Your task to perform on an android device: Toggle the flashlight Image 0: 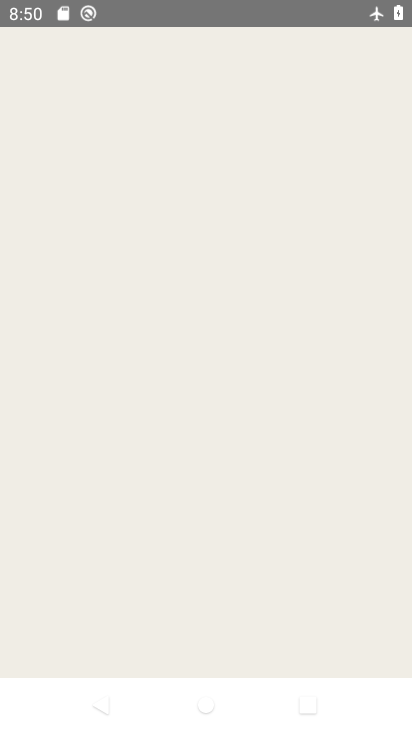
Step 0: drag from (244, 148) to (289, 19)
Your task to perform on an android device: Toggle the flashlight Image 1: 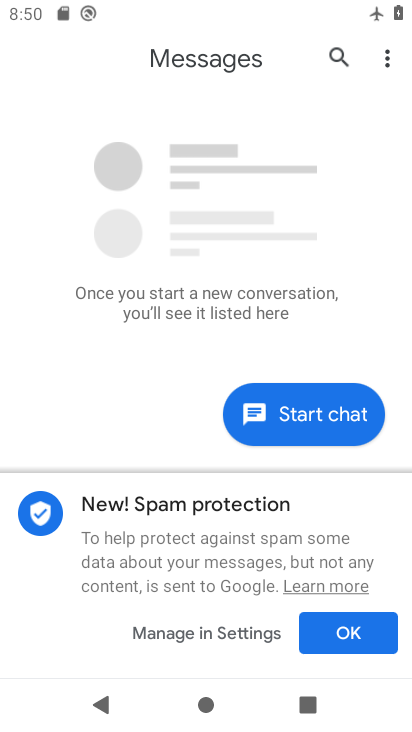
Step 1: press home button
Your task to perform on an android device: Toggle the flashlight Image 2: 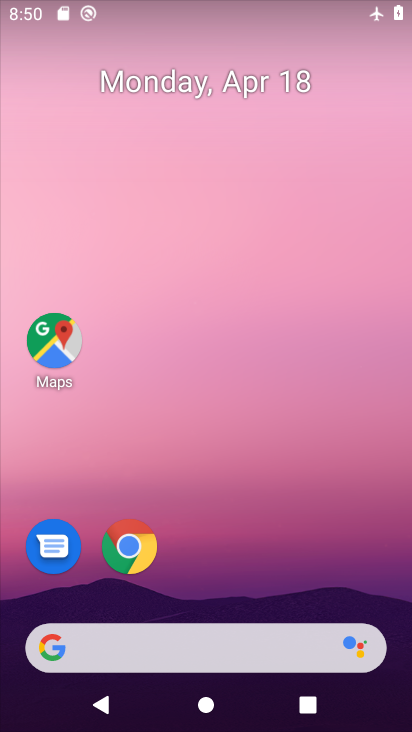
Step 2: drag from (396, 618) to (273, 7)
Your task to perform on an android device: Toggle the flashlight Image 3: 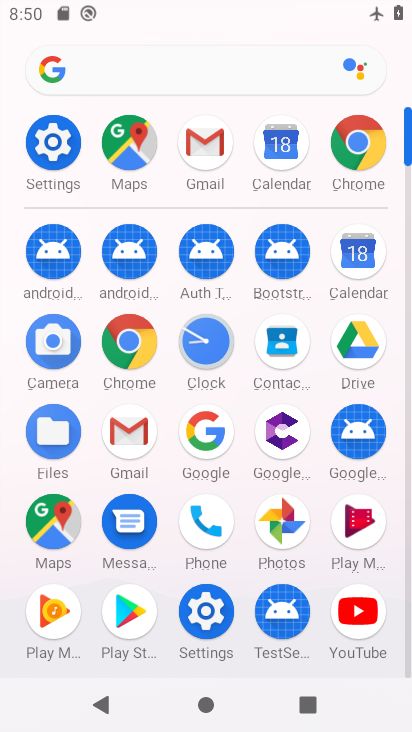
Step 3: drag from (276, 6) to (242, 616)
Your task to perform on an android device: Toggle the flashlight Image 4: 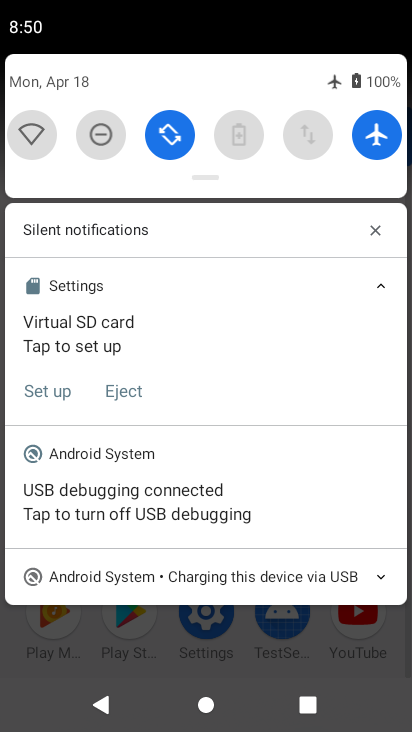
Step 4: drag from (210, 158) to (181, 553)
Your task to perform on an android device: Toggle the flashlight Image 5: 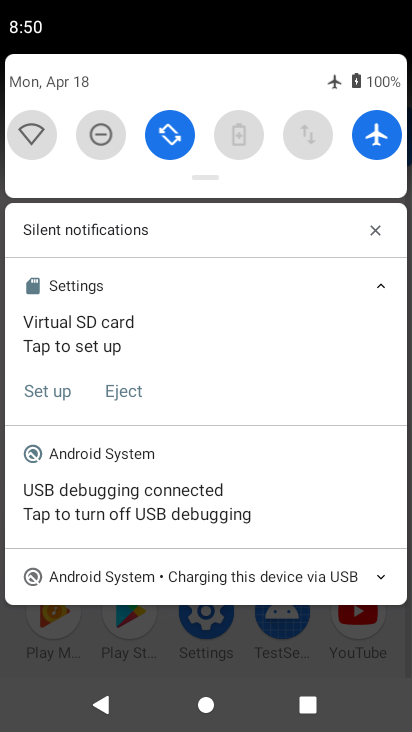
Step 5: drag from (211, 177) to (238, 646)
Your task to perform on an android device: Toggle the flashlight Image 6: 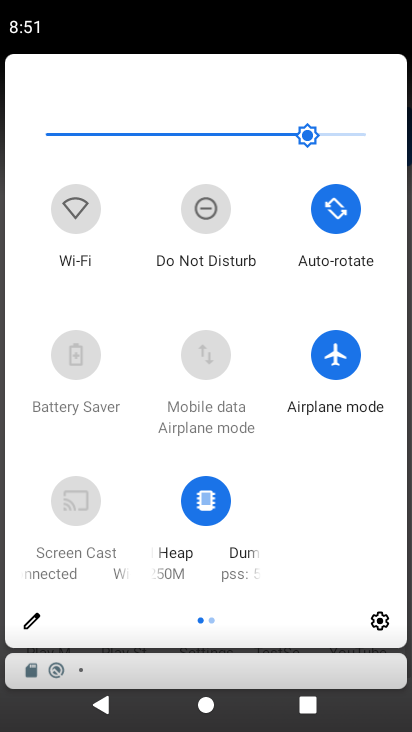
Step 6: drag from (360, 540) to (100, 528)
Your task to perform on an android device: Toggle the flashlight Image 7: 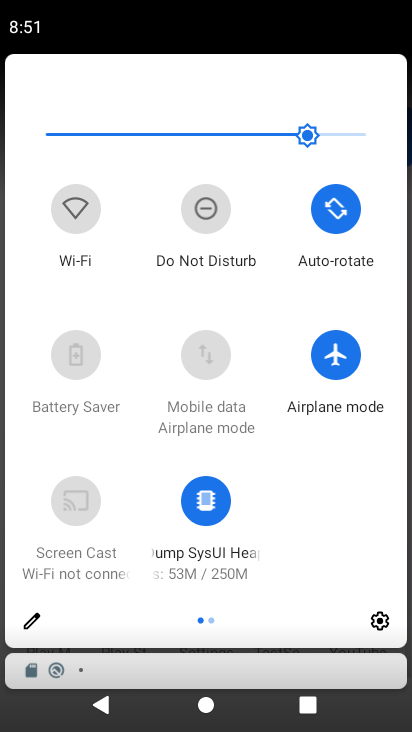
Step 7: drag from (361, 485) to (13, 458)
Your task to perform on an android device: Toggle the flashlight Image 8: 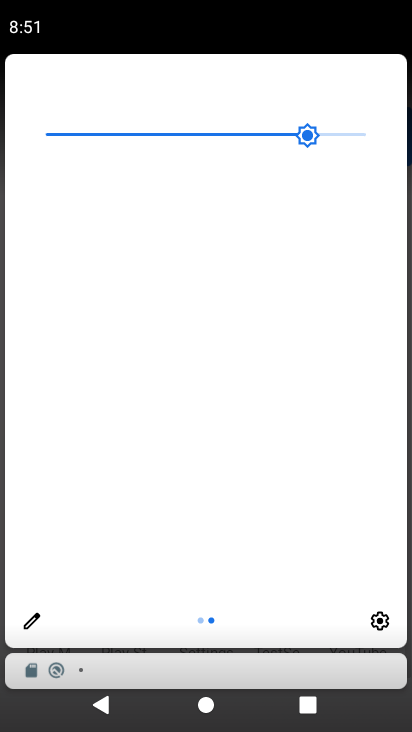
Step 8: click (29, 632)
Your task to perform on an android device: Toggle the flashlight Image 9: 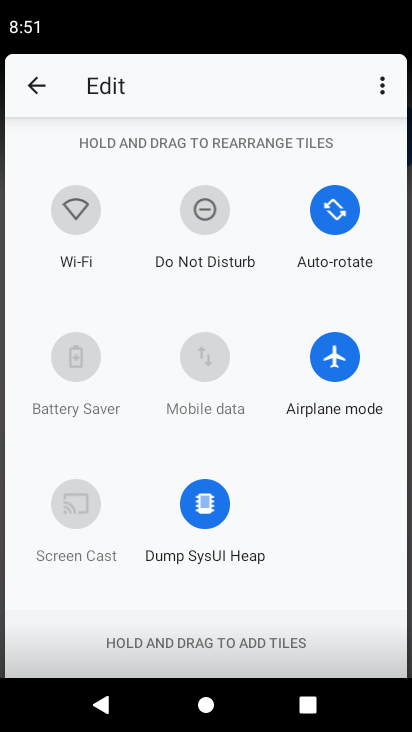
Step 9: task complete